Your task to perform on an android device: View the shopping cart on target. Add "logitech g910" to the cart on target, then select checkout. Image 0: 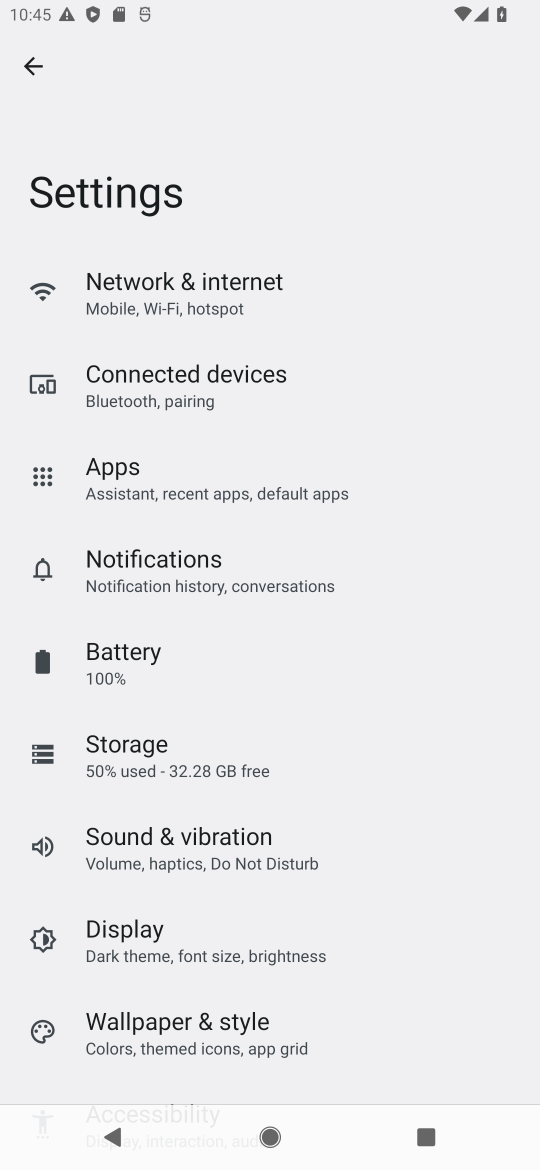
Step 0: press home button
Your task to perform on an android device: View the shopping cart on target. Add "logitech g910" to the cart on target, then select checkout. Image 1: 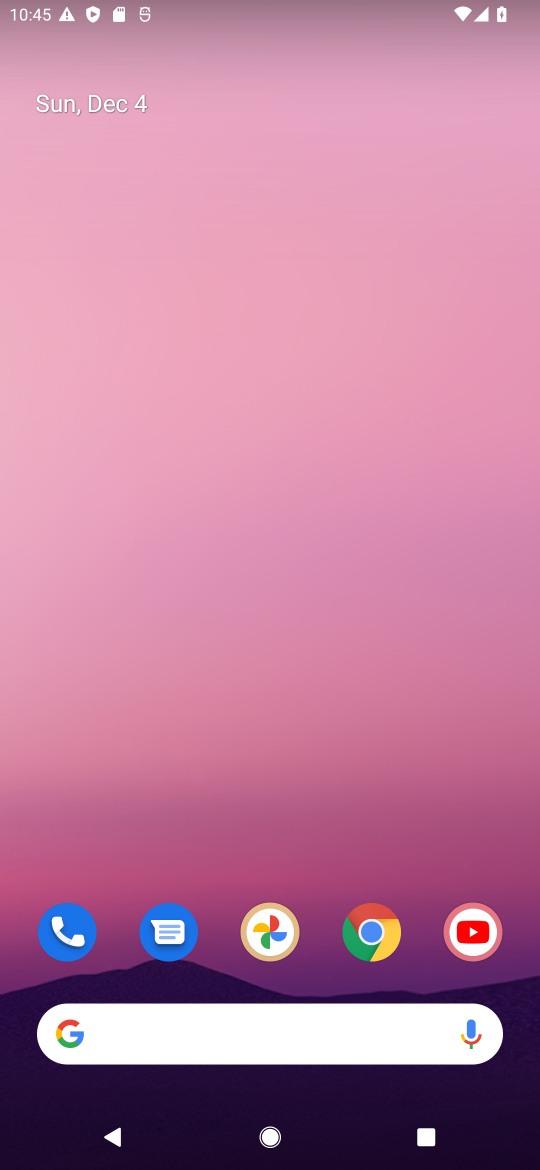
Step 1: click (371, 926)
Your task to perform on an android device: View the shopping cart on target. Add "logitech g910" to the cart on target, then select checkout. Image 2: 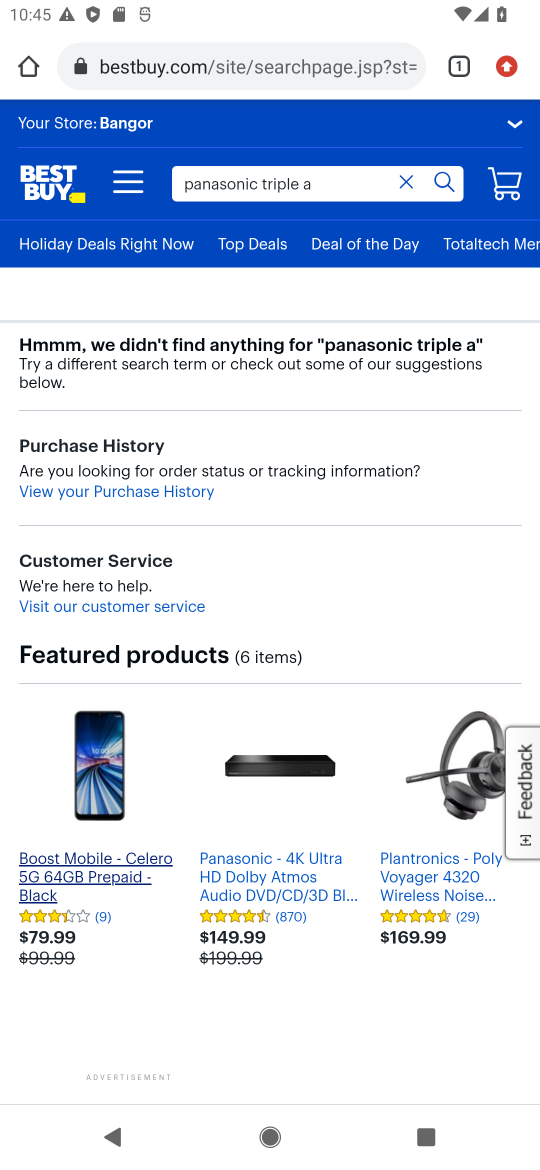
Step 2: click (233, 70)
Your task to perform on an android device: View the shopping cart on target. Add "logitech g910" to the cart on target, then select checkout. Image 3: 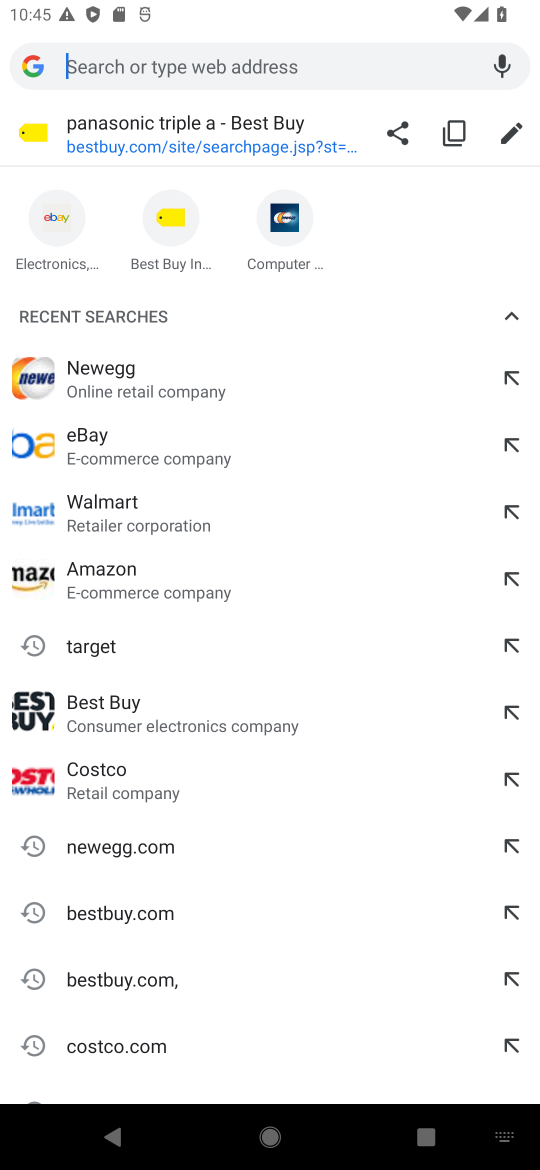
Step 3: click (102, 643)
Your task to perform on an android device: View the shopping cart on target. Add "logitech g910" to the cart on target, then select checkout. Image 4: 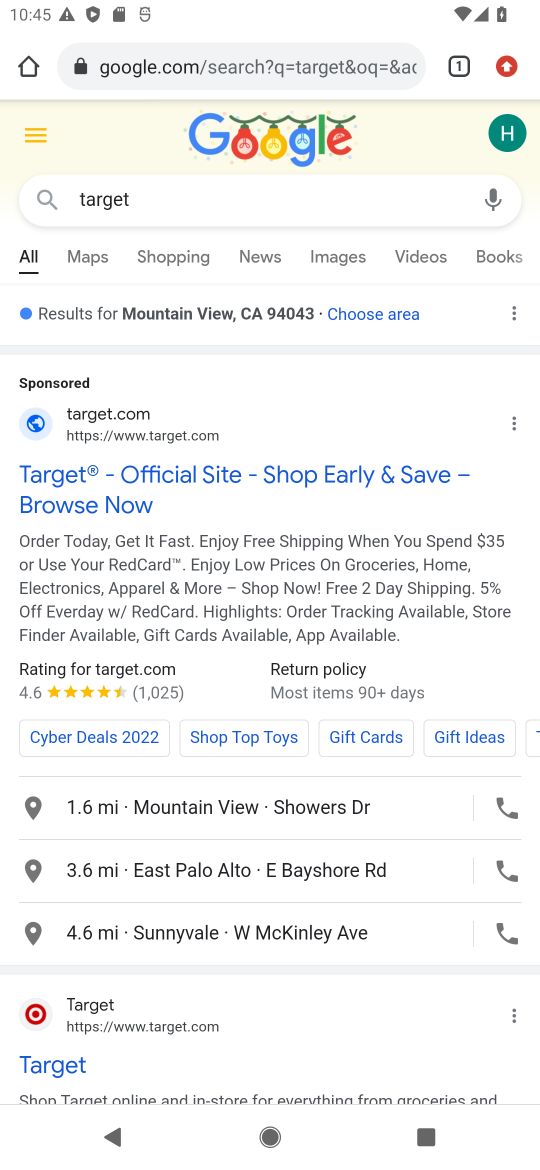
Step 4: click (217, 476)
Your task to perform on an android device: View the shopping cart on target. Add "logitech g910" to the cart on target, then select checkout. Image 5: 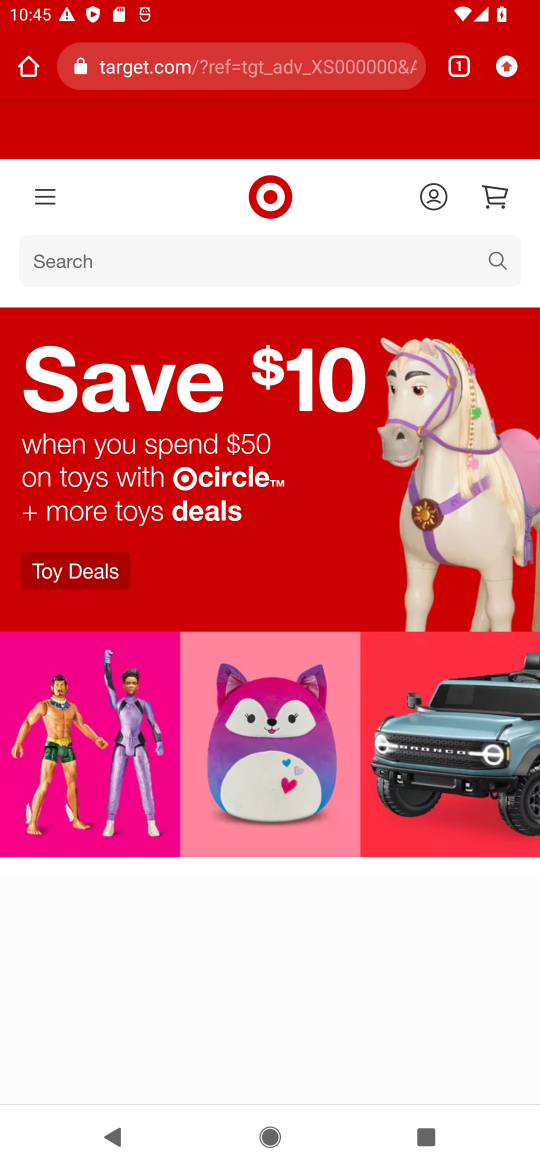
Step 5: click (374, 271)
Your task to perform on an android device: View the shopping cart on target. Add "logitech g910" to the cart on target, then select checkout. Image 6: 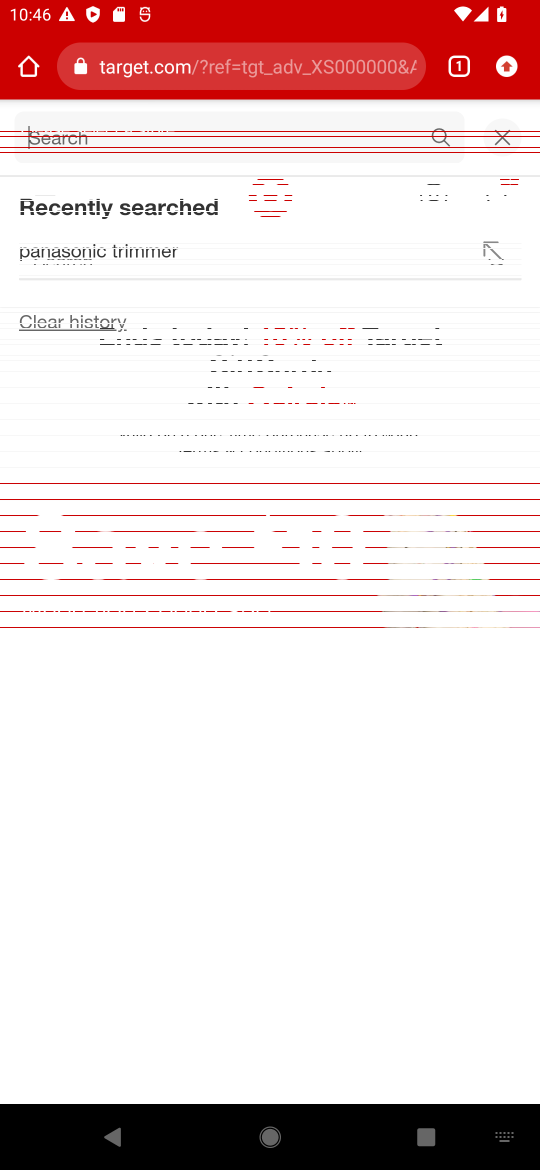
Step 6: type "logitech g910"
Your task to perform on an android device: View the shopping cart on target. Add "logitech g910" to the cart on target, then select checkout. Image 7: 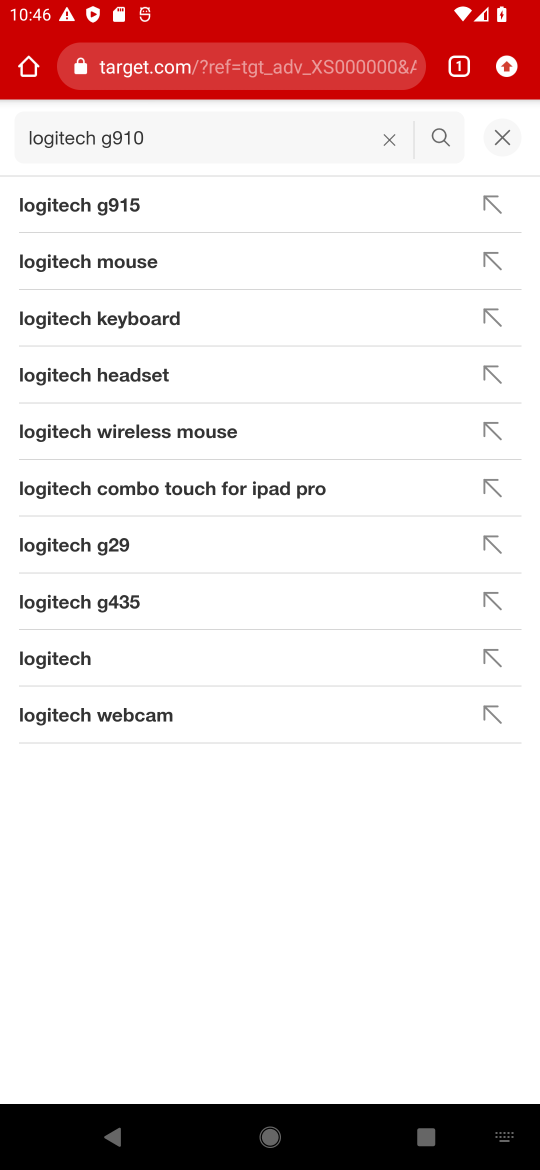
Step 7: task complete